Your task to perform on an android device: turn smart compose on in the gmail app Image 0: 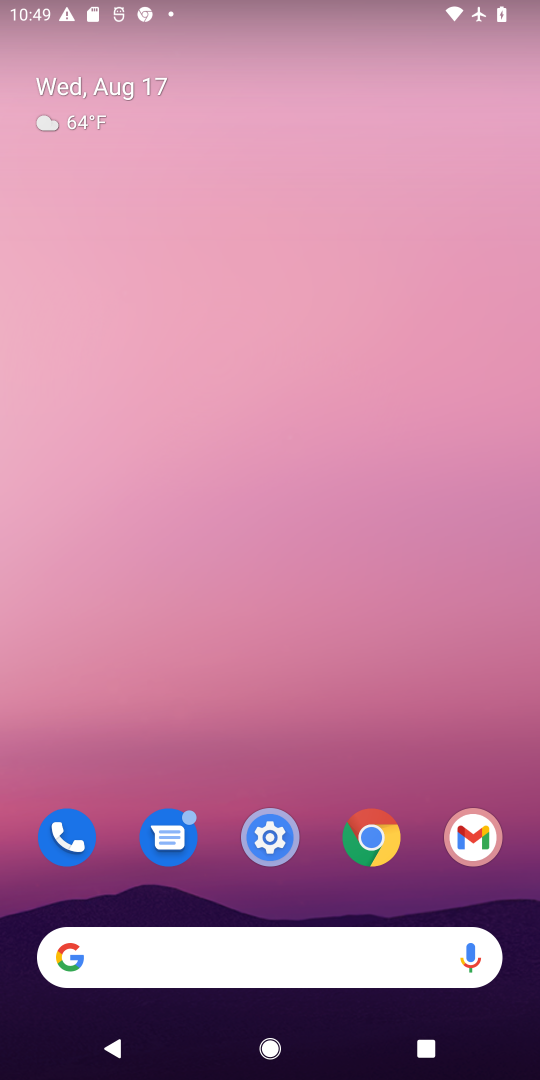
Step 0: drag from (227, 965) to (310, 268)
Your task to perform on an android device: turn smart compose on in the gmail app Image 1: 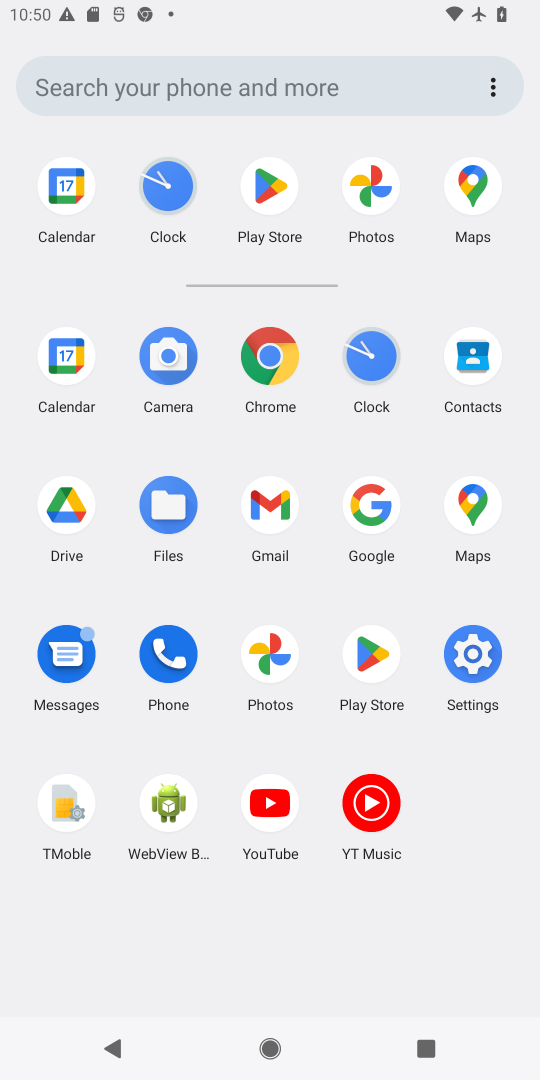
Step 1: click (271, 503)
Your task to perform on an android device: turn smart compose on in the gmail app Image 2: 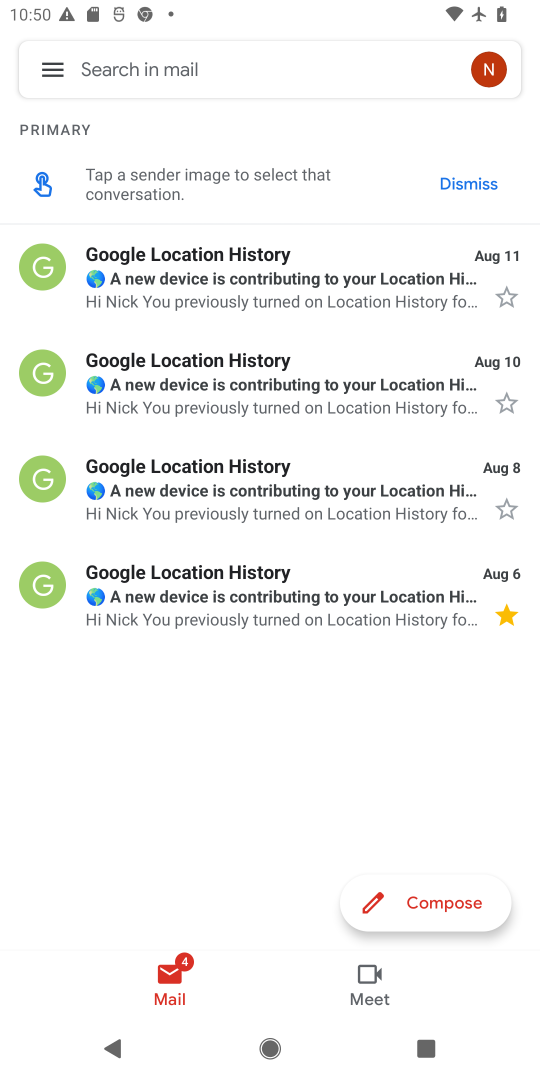
Step 2: click (52, 67)
Your task to perform on an android device: turn smart compose on in the gmail app Image 3: 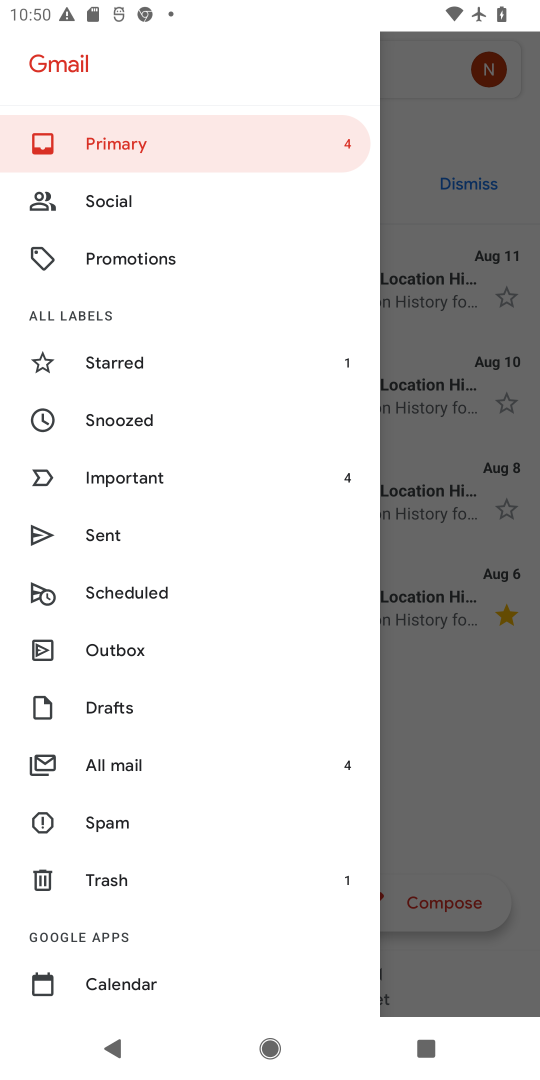
Step 3: drag from (122, 790) to (173, 687)
Your task to perform on an android device: turn smart compose on in the gmail app Image 4: 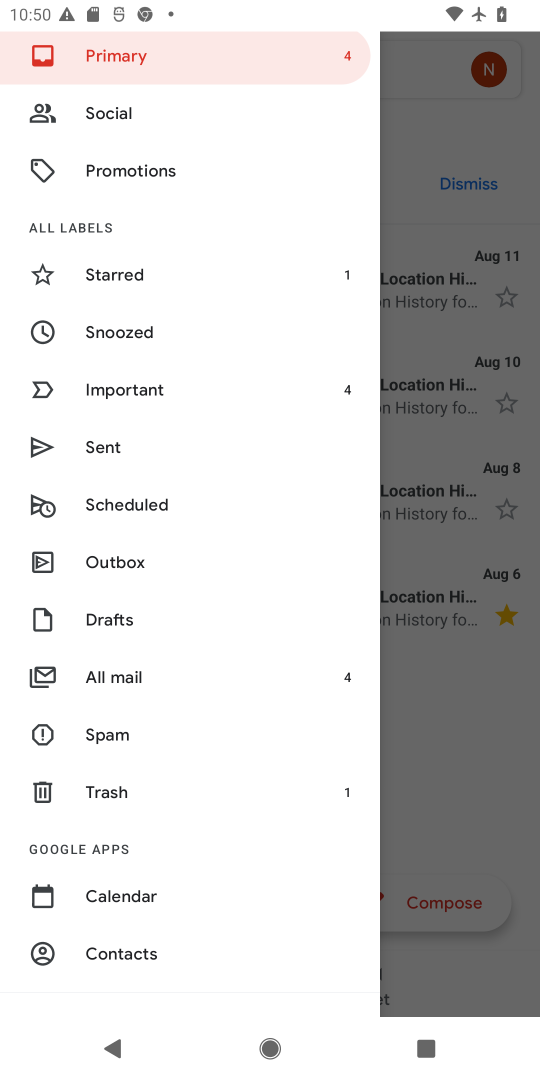
Step 4: drag from (121, 922) to (219, 791)
Your task to perform on an android device: turn smart compose on in the gmail app Image 5: 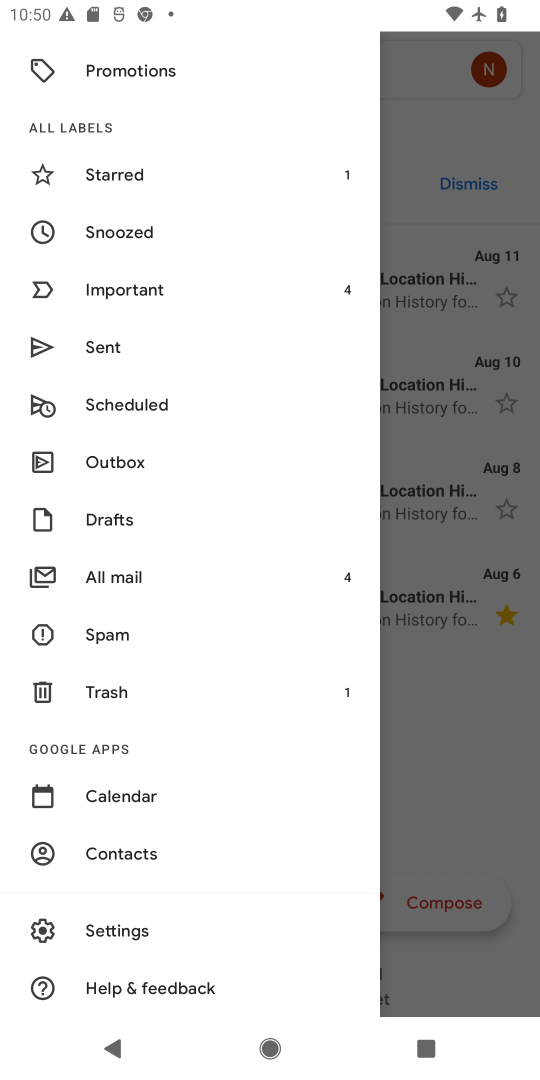
Step 5: click (109, 930)
Your task to perform on an android device: turn smart compose on in the gmail app Image 6: 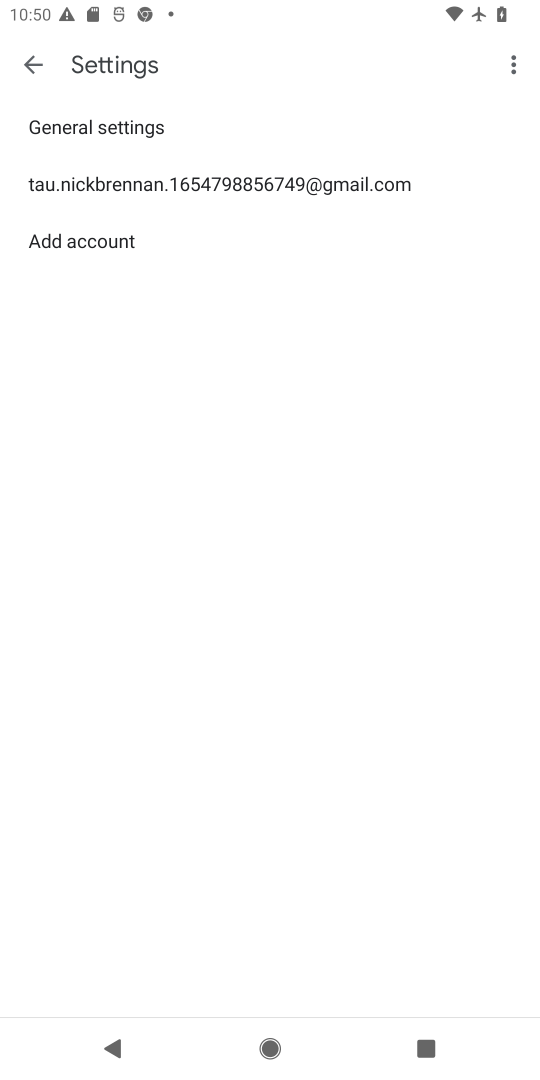
Step 6: click (304, 177)
Your task to perform on an android device: turn smart compose on in the gmail app Image 7: 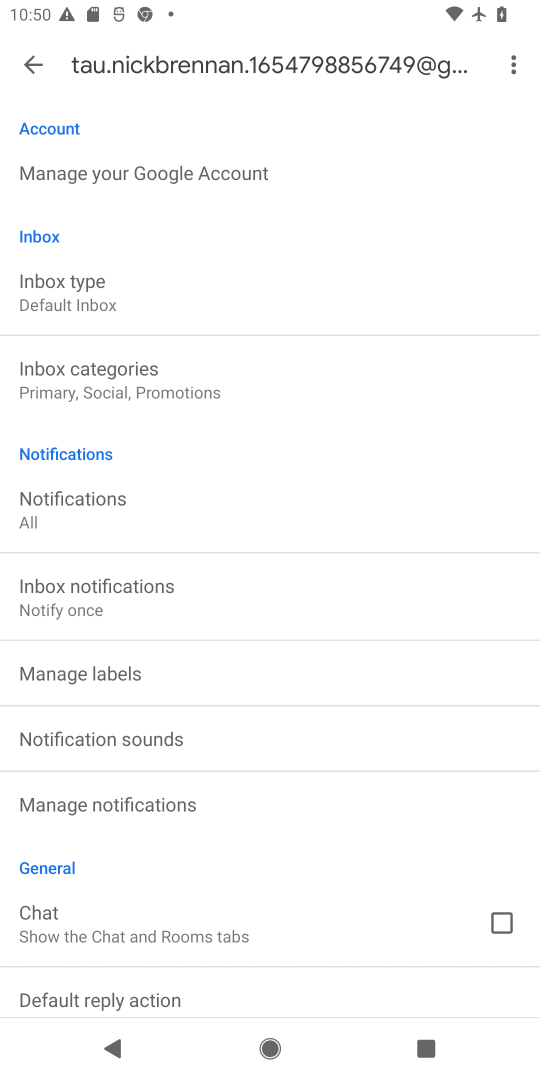
Step 7: task complete